Your task to perform on an android device: check google app version Image 0: 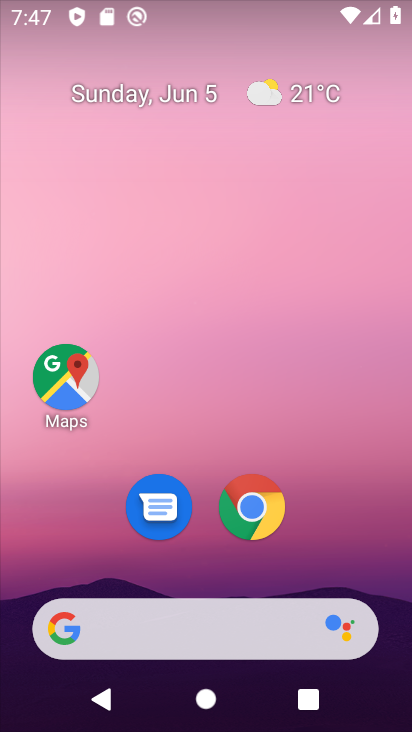
Step 0: drag from (391, 559) to (242, 45)
Your task to perform on an android device: check google app version Image 1: 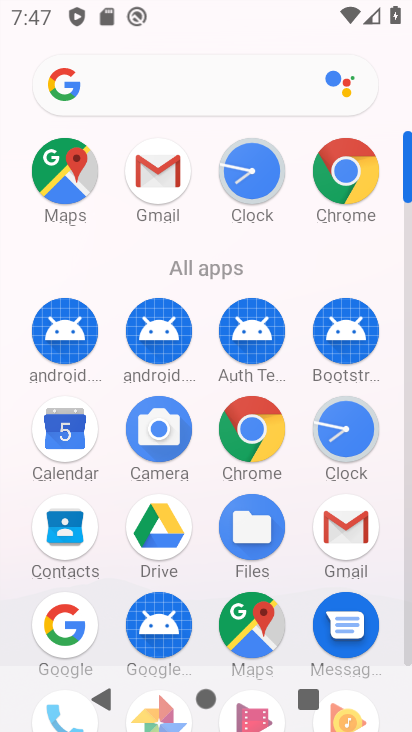
Step 1: drag from (7, 626) to (1, 243)
Your task to perform on an android device: check google app version Image 2: 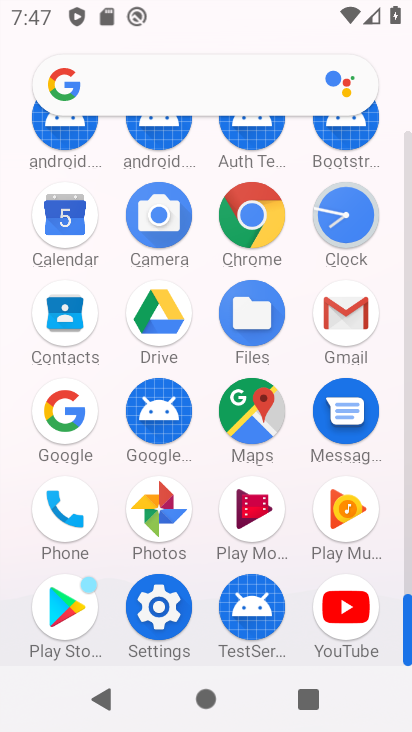
Step 2: click (57, 405)
Your task to perform on an android device: check google app version Image 3: 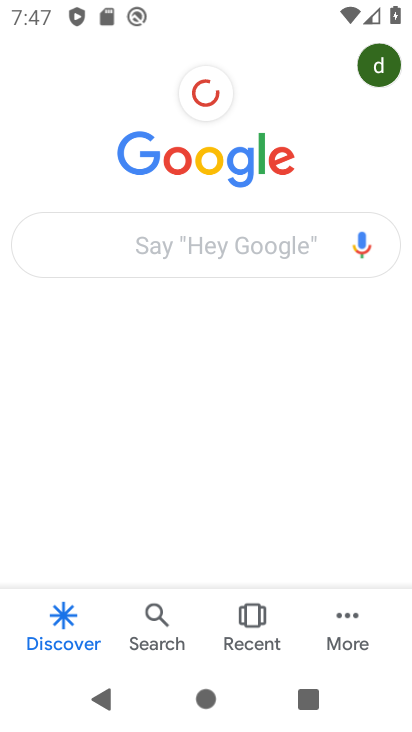
Step 3: click (350, 612)
Your task to perform on an android device: check google app version Image 4: 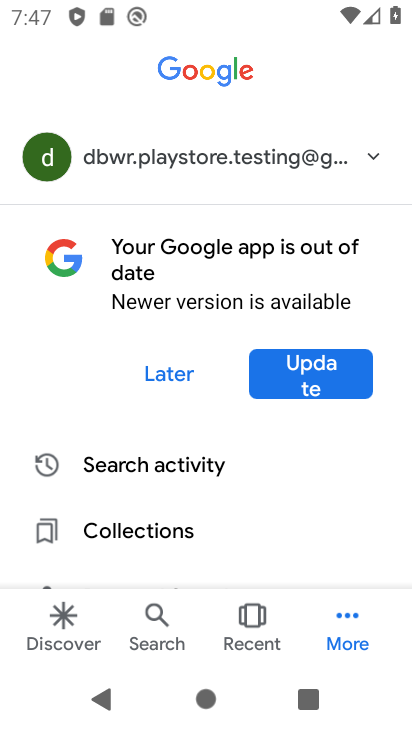
Step 4: drag from (126, 530) to (138, 213)
Your task to perform on an android device: check google app version Image 5: 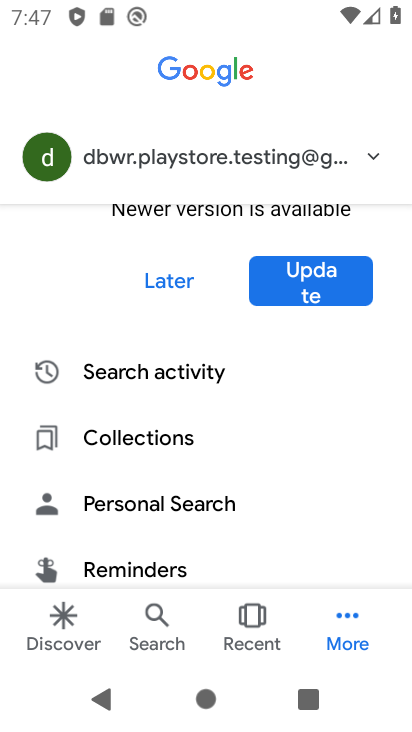
Step 5: drag from (126, 573) to (176, 253)
Your task to perform on an android device: check google app version Image 6: 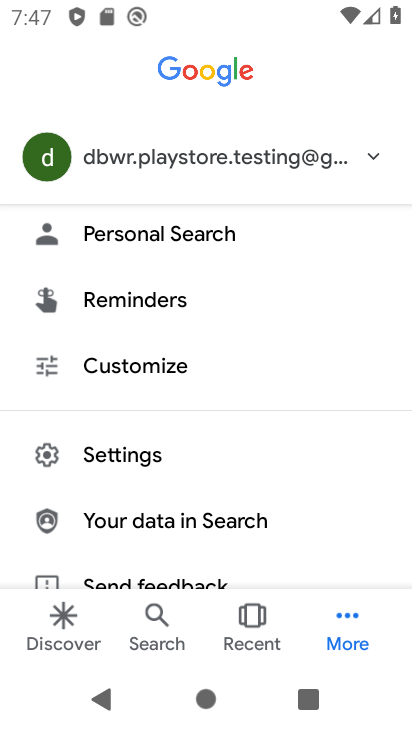
Step 6: click (138, 453)
Your task to perform on an android device: check google app version Image 7: 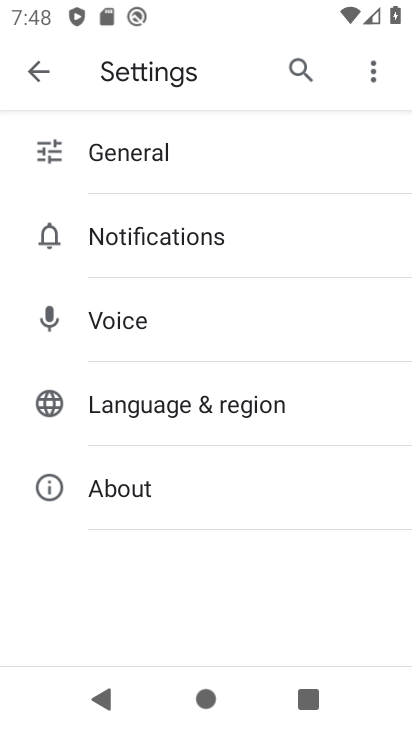
Step 7: click (142, 493)
Your task to perform on an android device: check google app version Image 8: 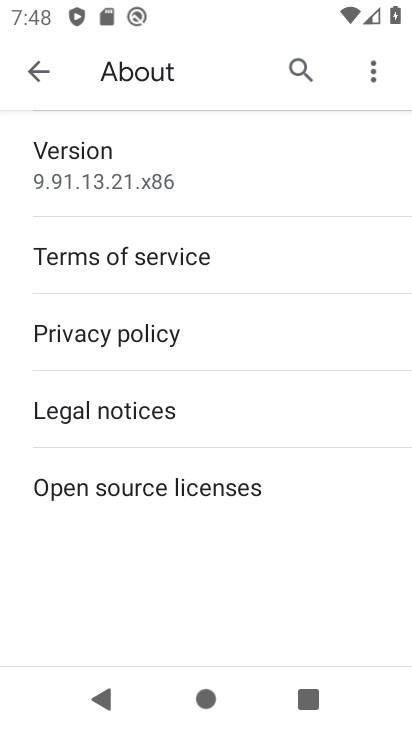
Step 8: task complete